Your task to perform on an android device: Open Android settings Image 0: 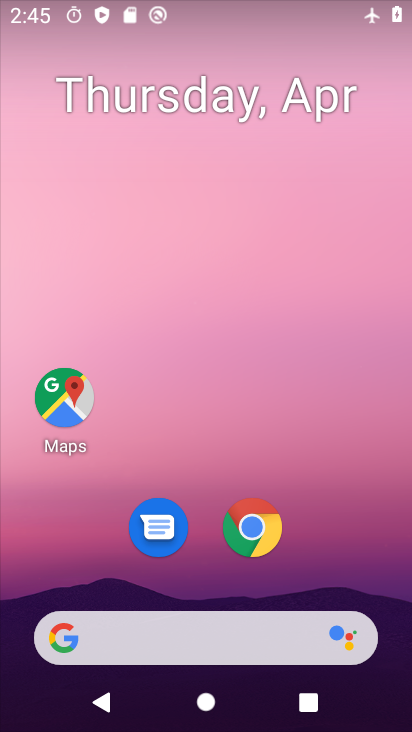
Step 0: drag from (344, 500) to (328, 1)
Your task to perform on an android device: Open Android settings Image 1: 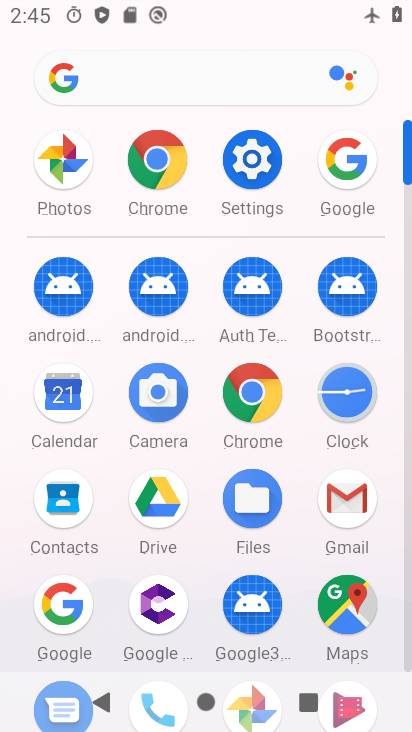
Step 1: click (262, 215)
Your task to perform on an android device: Open Android settings Image 2: 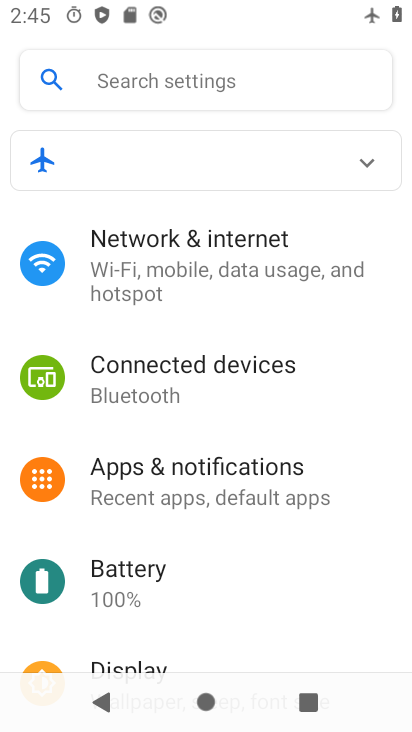
Step 2: task complete